Your task to perform on an android device: What is the speed of a train? Image 0: 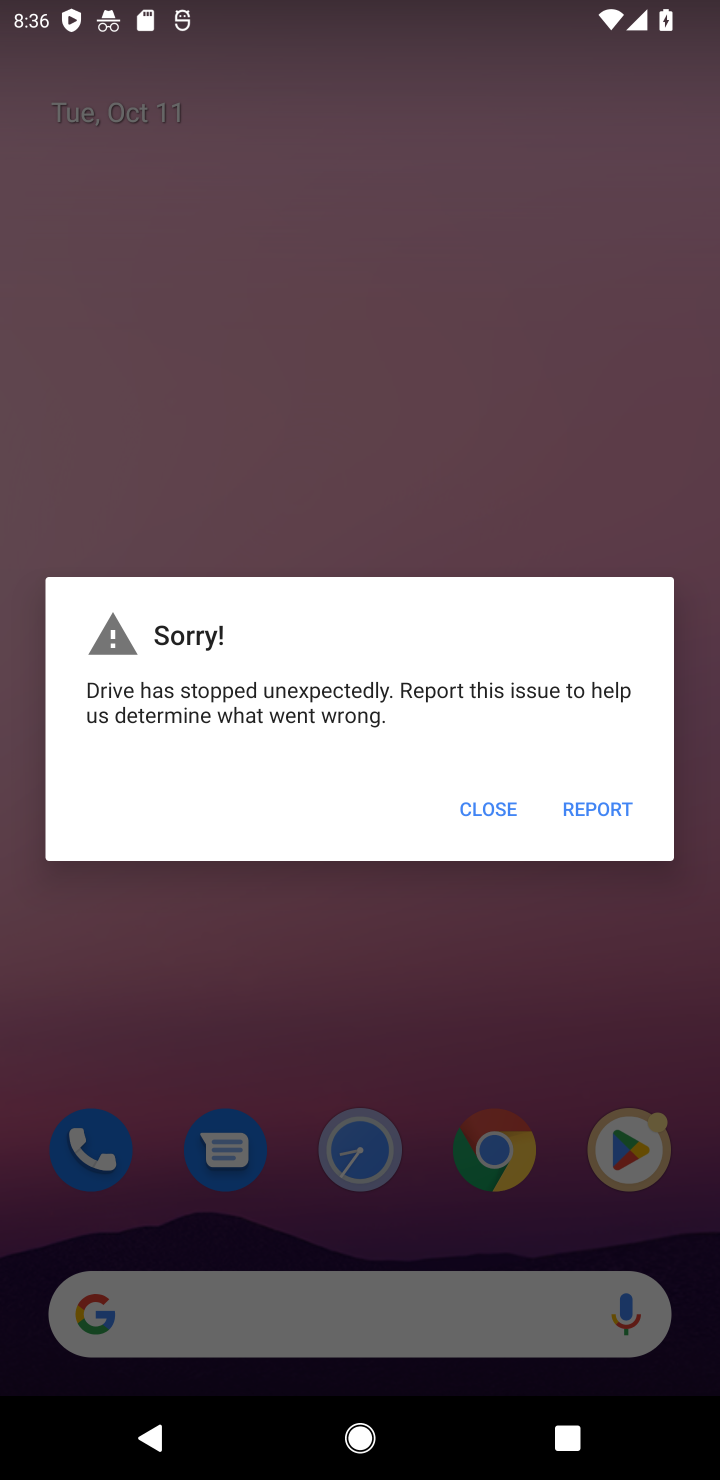
Step 0: press home button
Your task to perform on an android device: What is the speed of a train? Image 1: 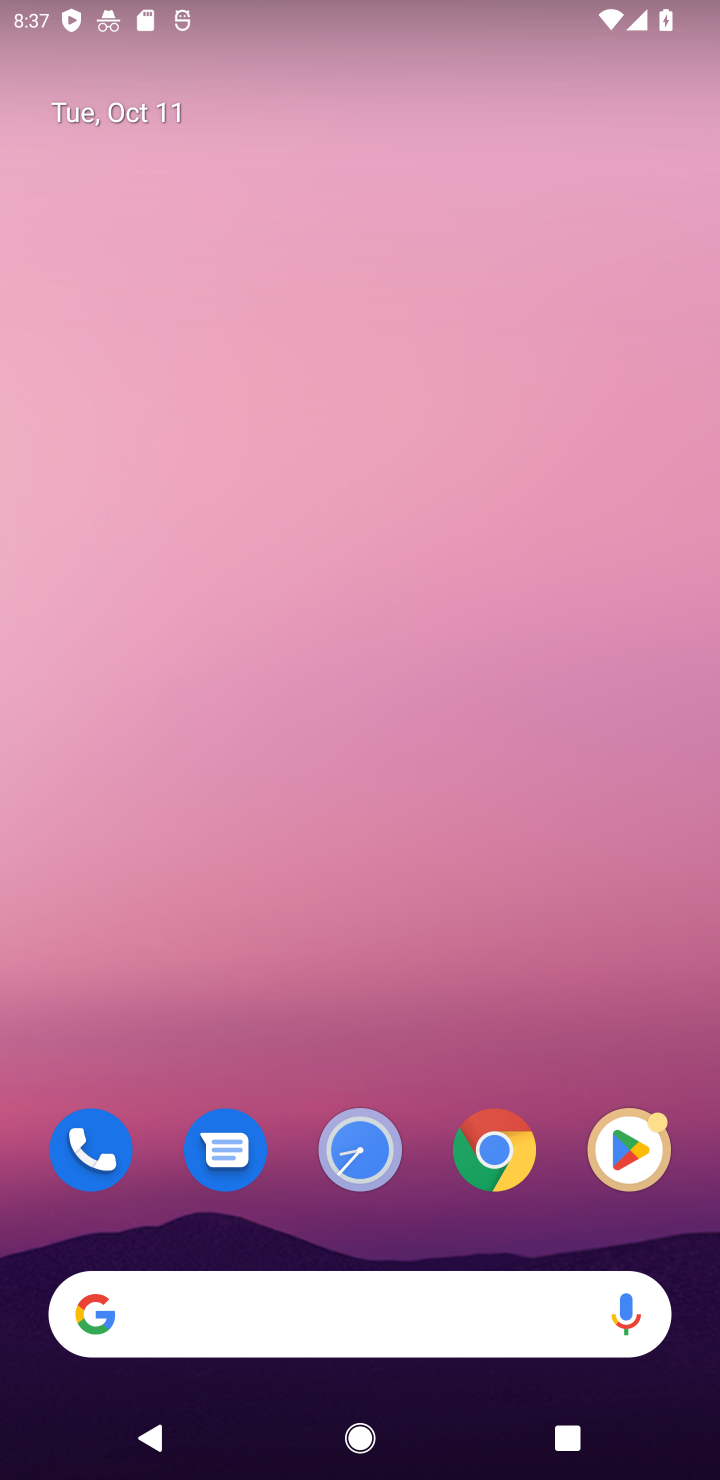
Step 1: click (497, 1171)
Your task to perform on an android device: What is the speed of a train? Image 2: 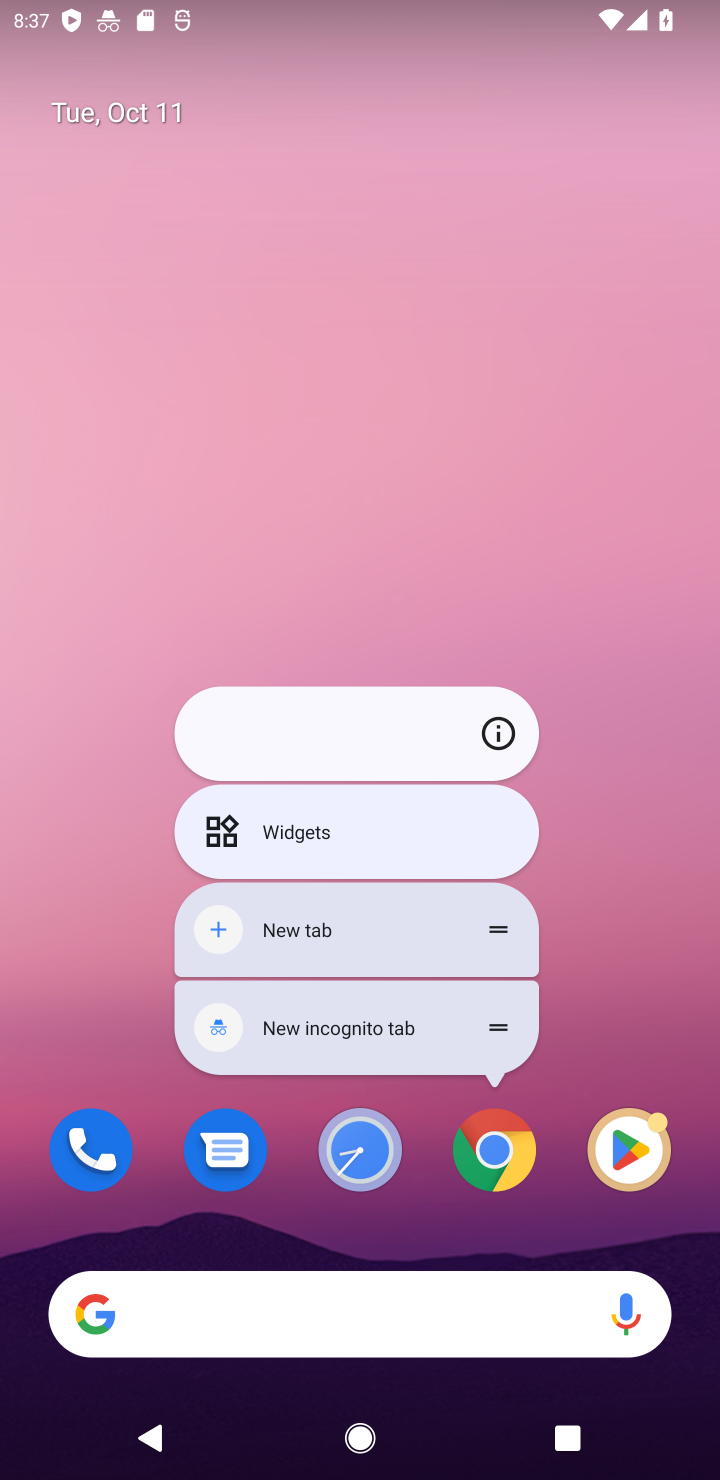
Step 2: click (499, 1148)
Your task to perform on an android device: What is the speed of a train? Image 3: 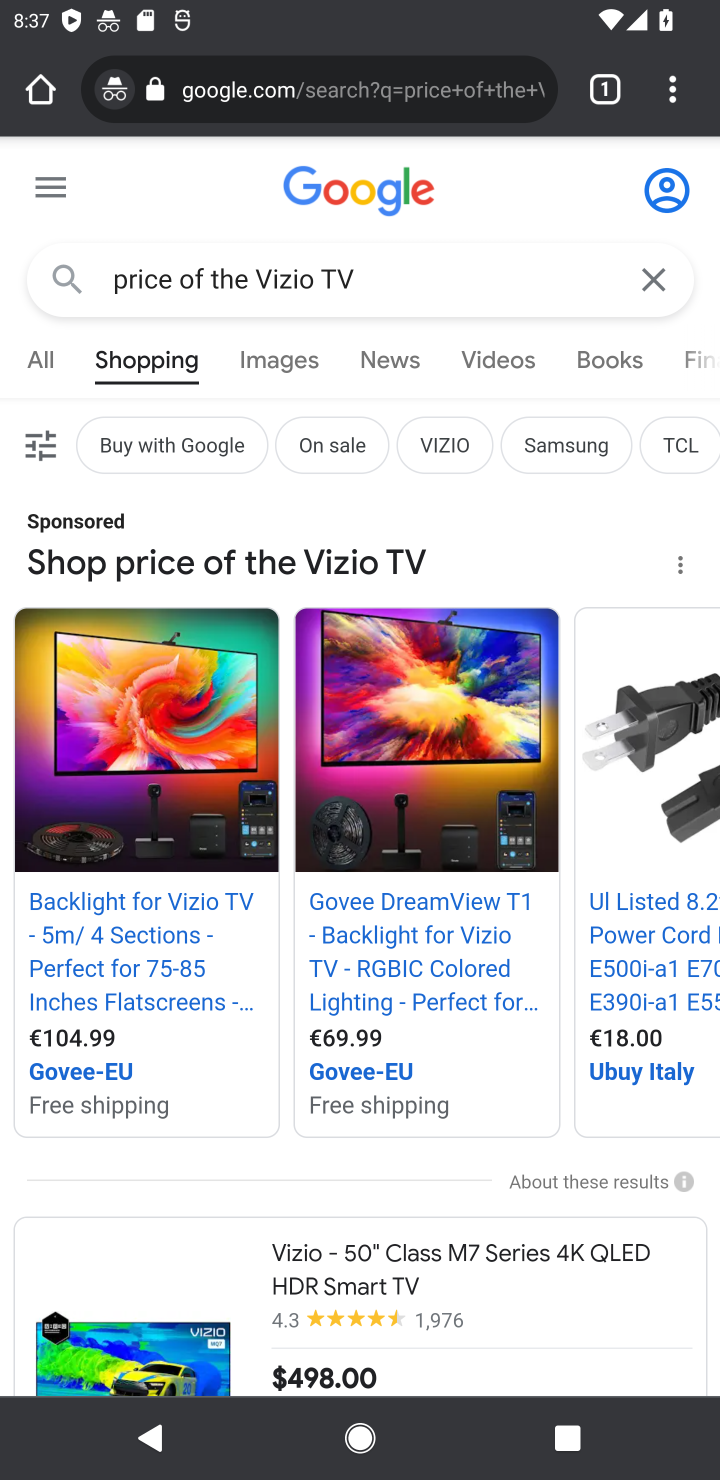
Step 3: click (640, 270)
Your task to perform on an android device: What is the speed of a train? Image 4: 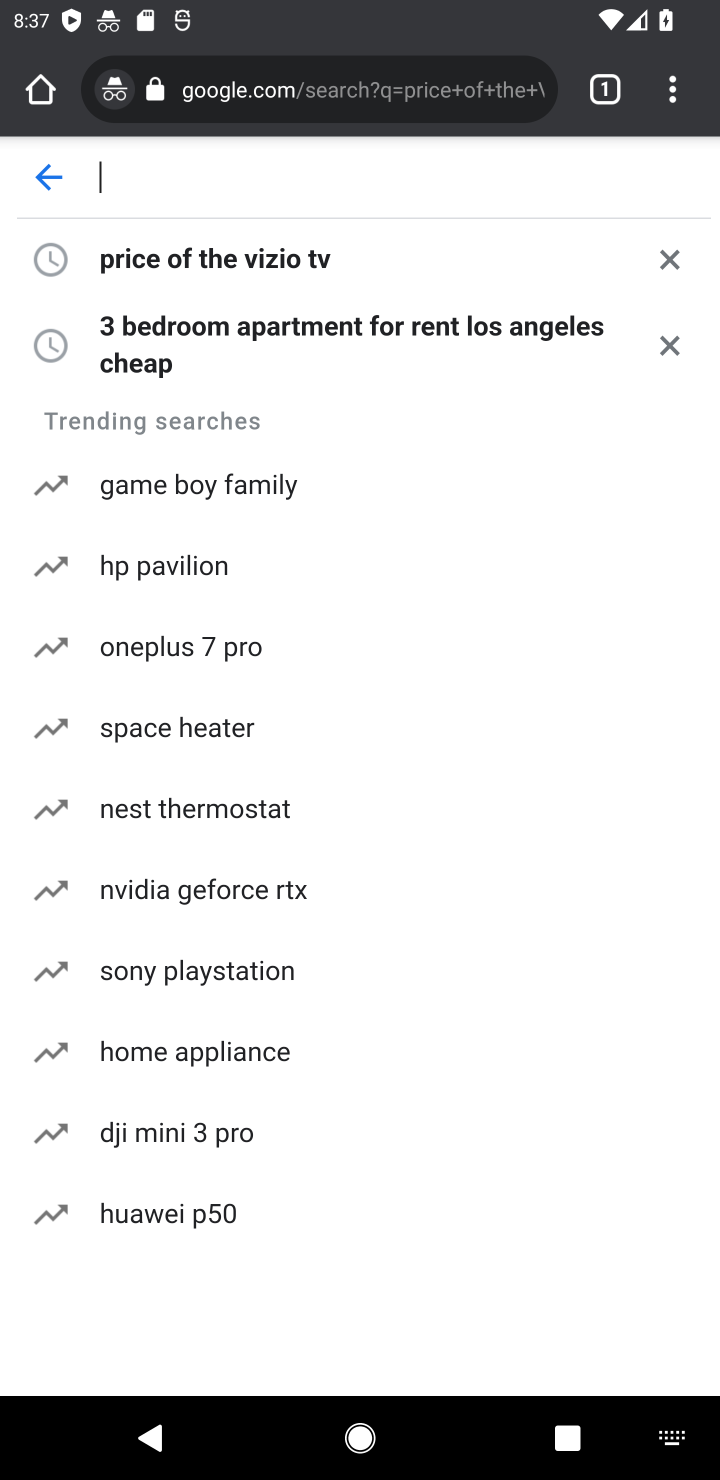
Step 4: type "speed of train"
Your task to perform on an android device: What is the speed of a train? Image 5: 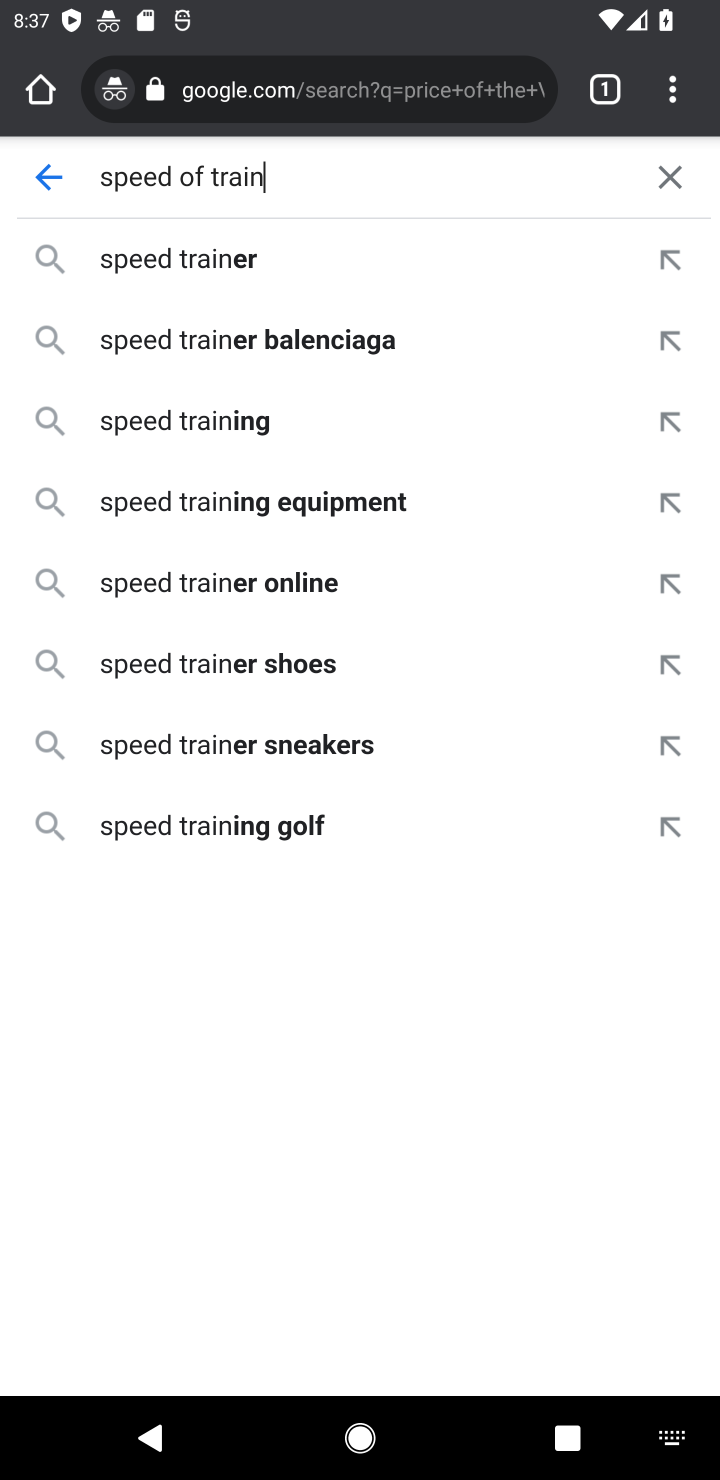
Step 5: click (320, 189)
Your task to perform on an android device: What is the speed of a train? Image 6: 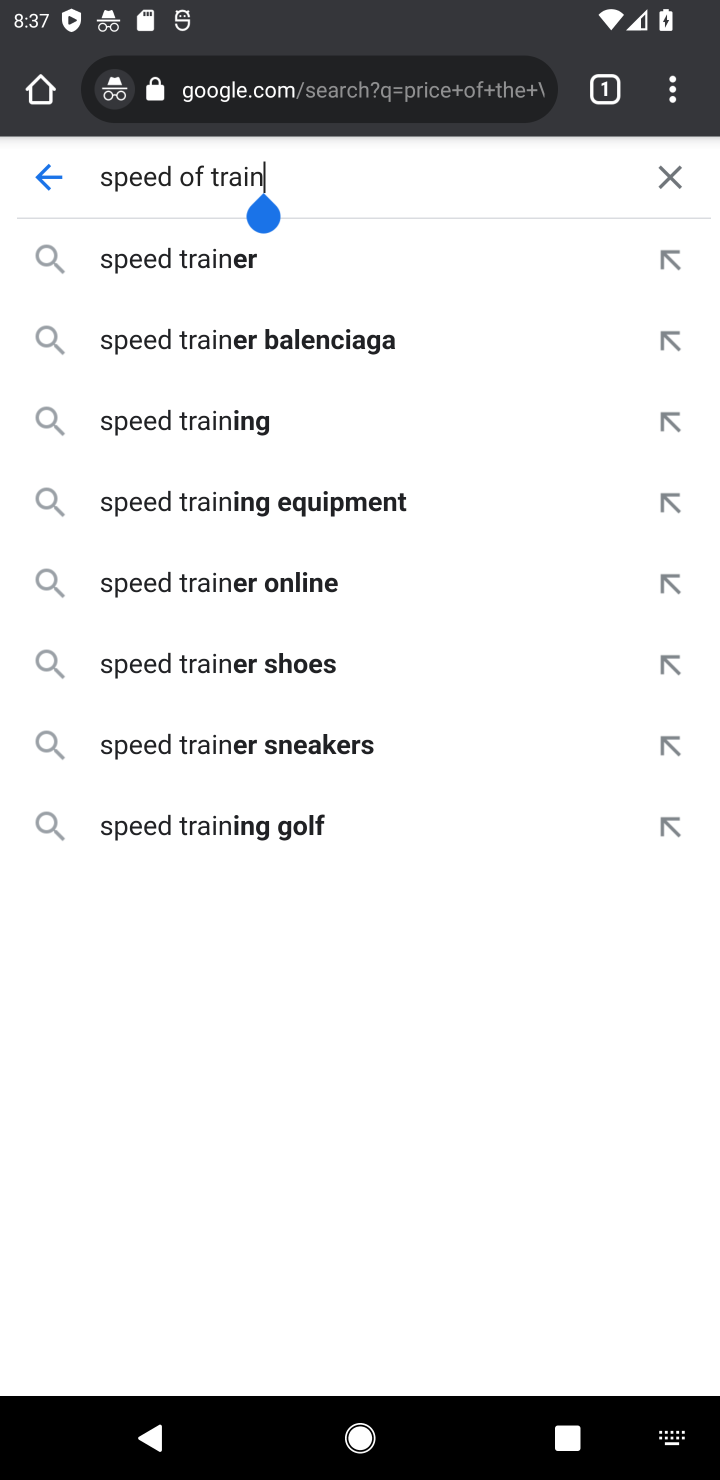
Step 6: click (215, 181)
Your task to perform on an android device: What is the speed of a train? Image 7: 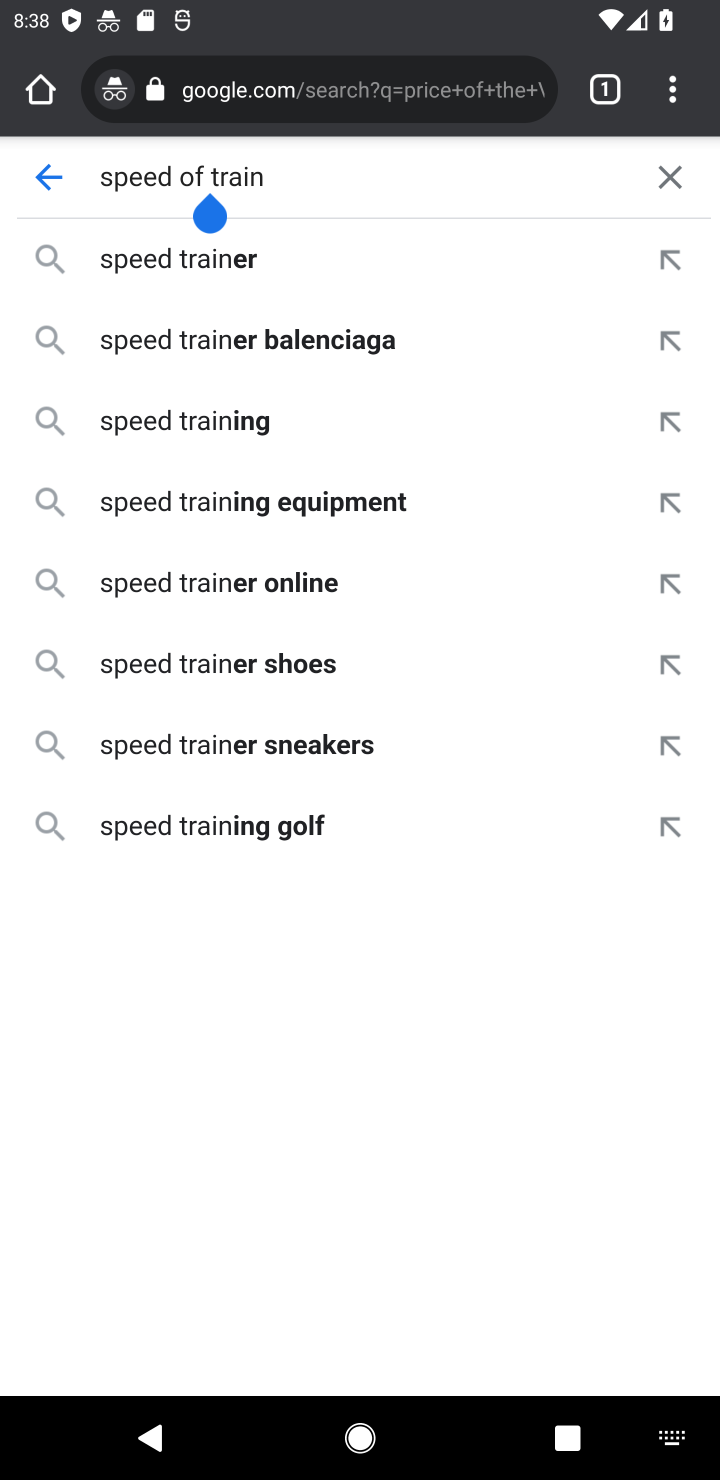
Step 7: type "a "
Your task to perform on an android device: What is the speed of a train? Image 8: 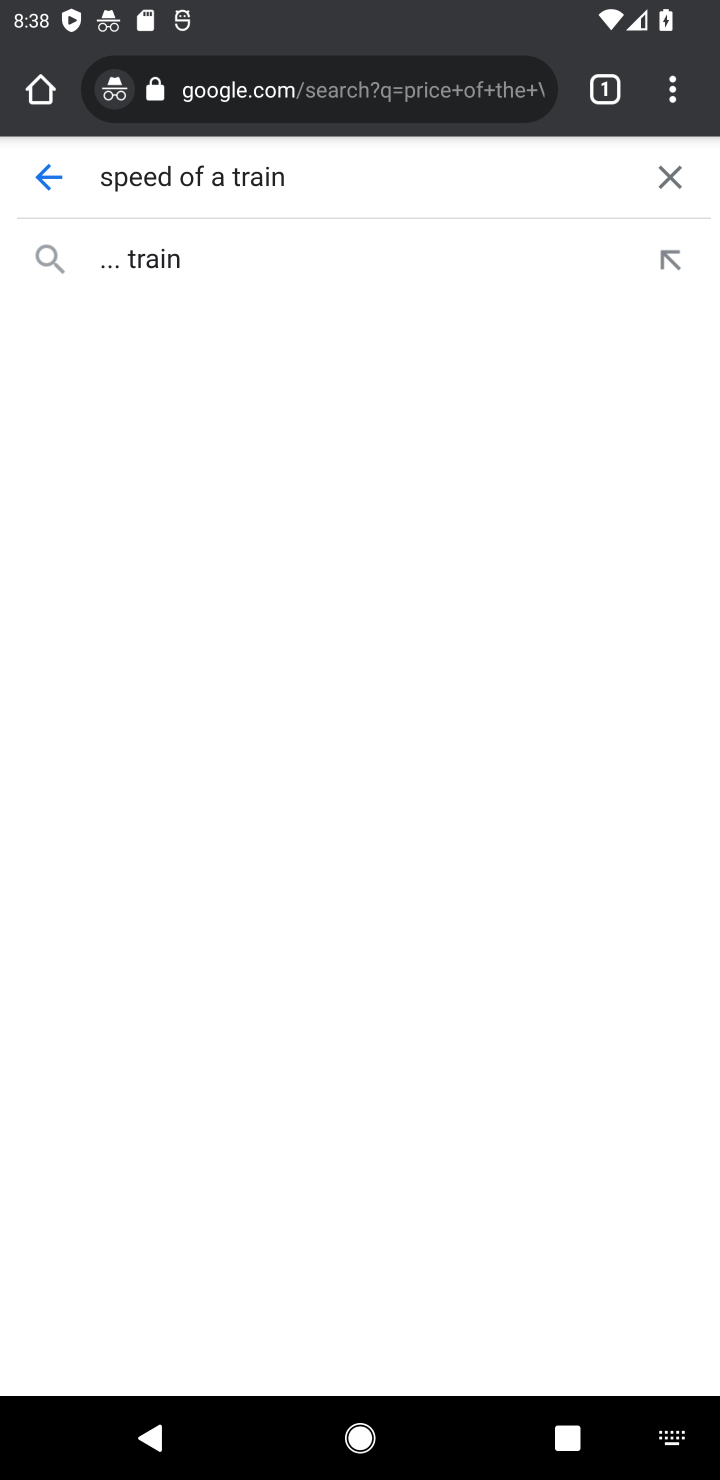
Step 8: click (155, 258)
Your task to perform on an android device: What is the speed of a train? Image 9: 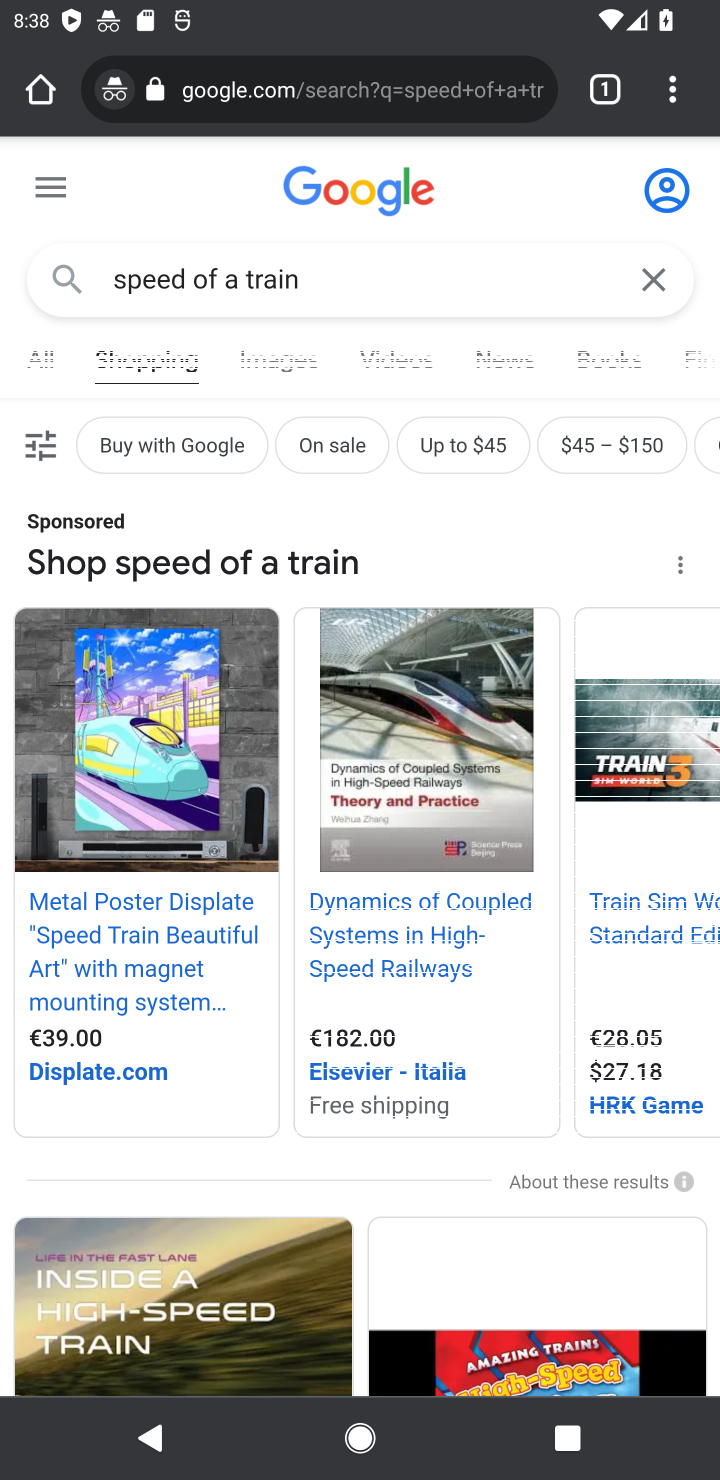
Step 9: click (48, 368)
Your task to perform on an android device: What is the speed of a train? Image 10: 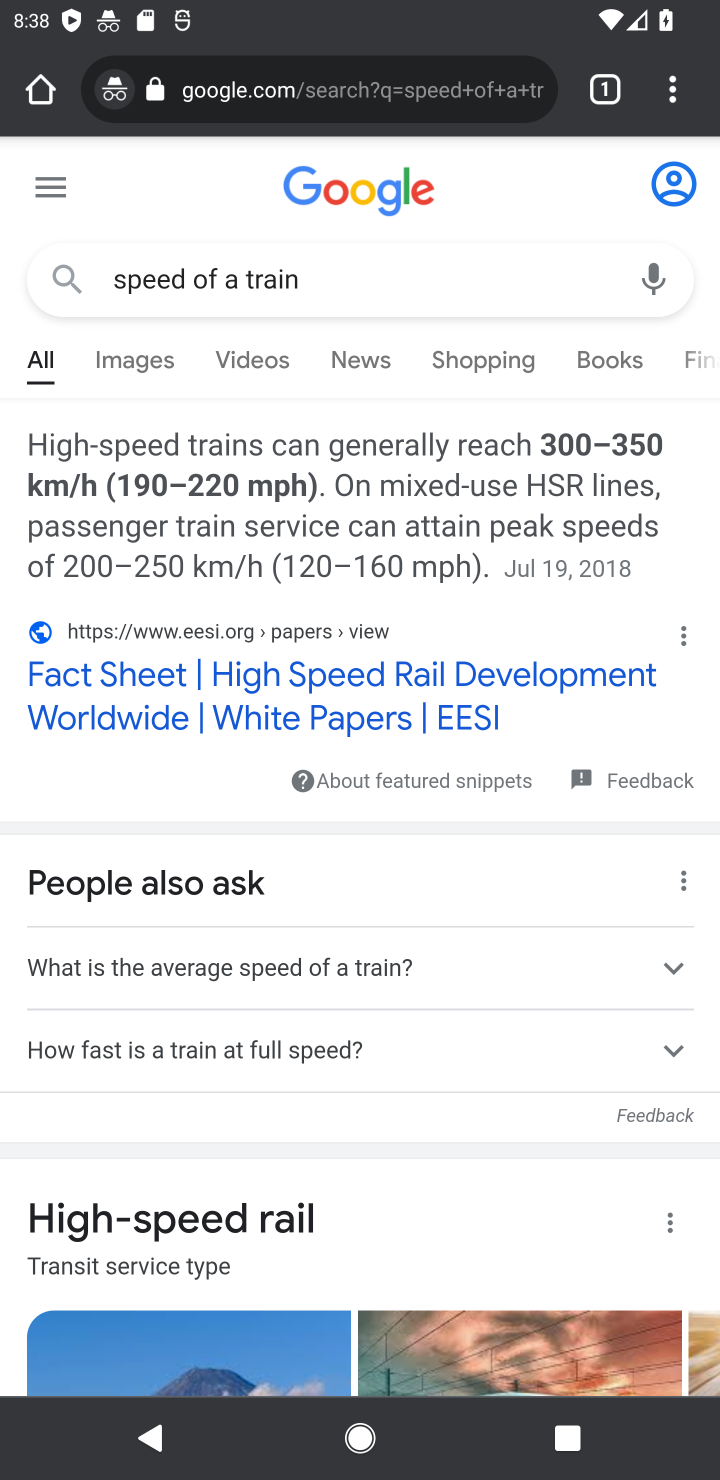
Step 10: task complete